Your task to perform on an android device: make emails show in primary in the gmail app Image 0: 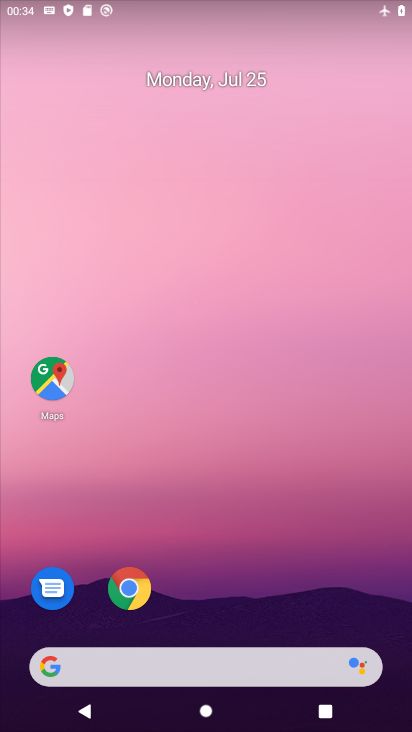
Step 0: drag from (238, 610) to (257, 22)
Your task to perform on an android device: make emails show in primary in the gmail app Image 1: 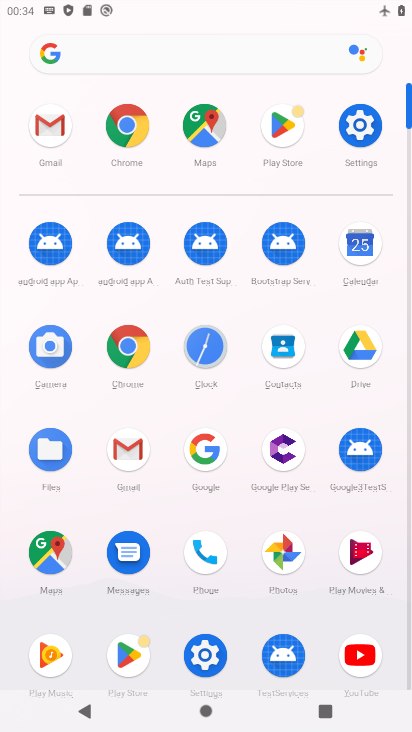
Step 1: click (128, 446)
Your task to perform on an android device: make emails show in primary in the gmail app Image 2: 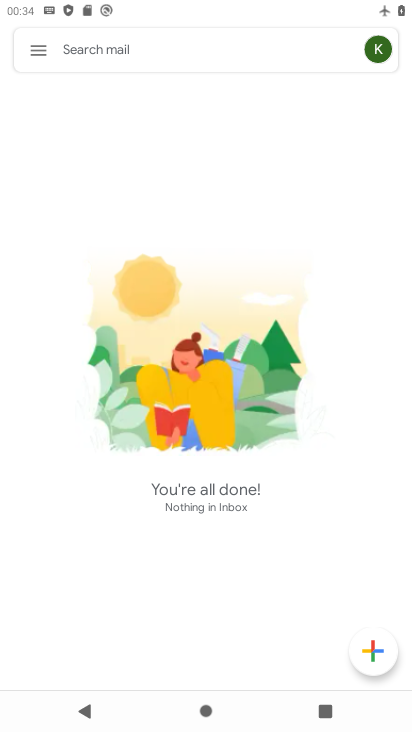
Step 2: click (28, 52)
Your task to perform on an android device: make emails show in primary in the gmail app Image 3: 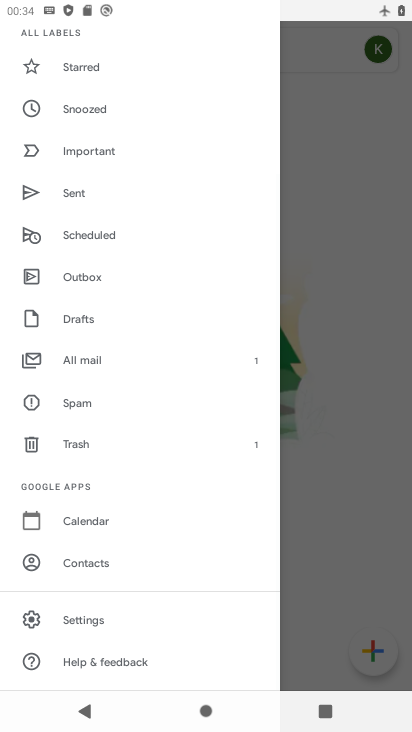
Step 3: drag from (73, 508) to (96, 88)
Your task to perform on an android device: make emails show in primary in the gmail app Image 4: 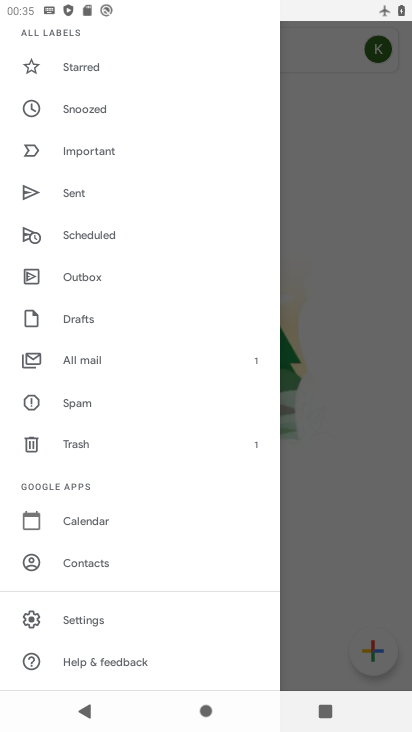
Step 4: click (91, 629)
Your task to perform on an android device: make emails show in primary in the gmail app Image 5: 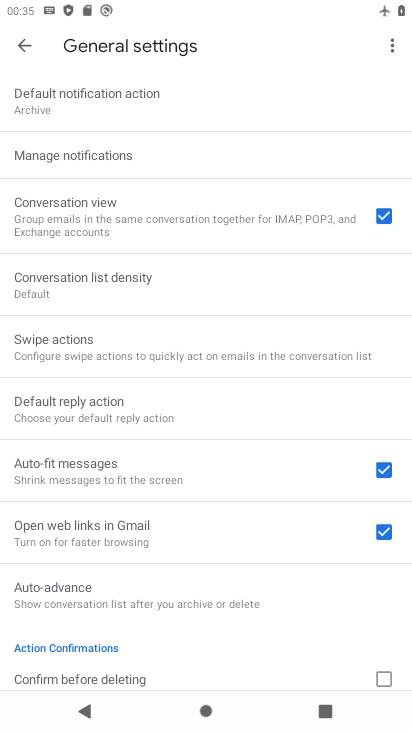
Step 5: click (27, 46)
Your task to perform on an android device: make emails show in primary in the gmail app Image 6: 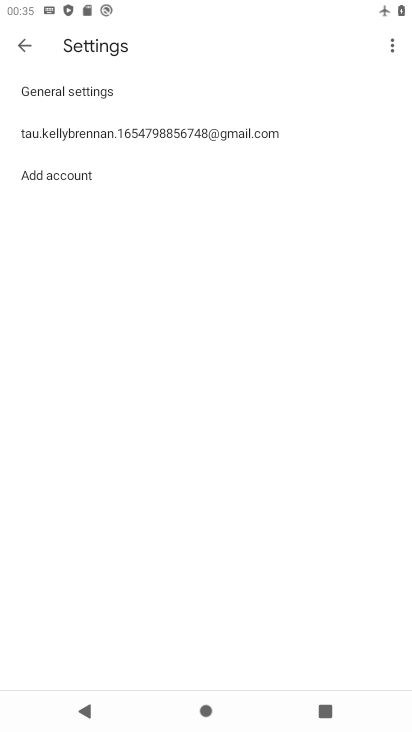
Step 6: click (184, 131)
Your task to perform on an android device: make emails show in primary in the gmail app Image 7: 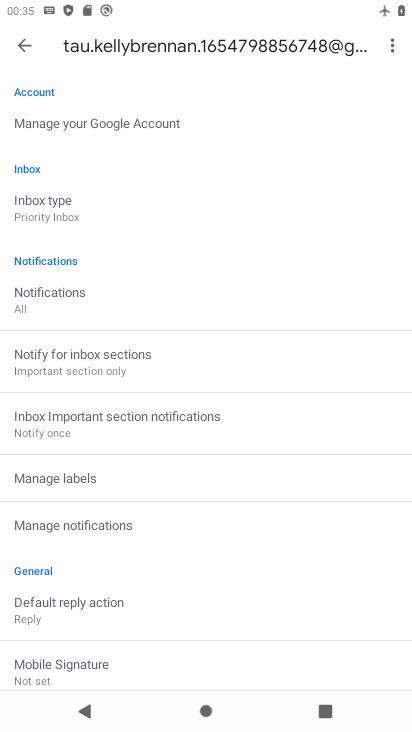
Step 7: click (71, 213)
Your task to perform on an android device: make emails show in primary in the gmail app Image 8: 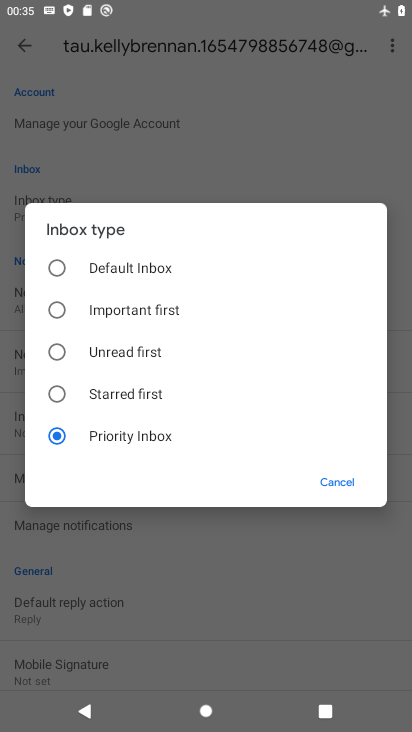
Step 8: click (110, 264)
Your task to perform on an android device: make emails show in primary in the gmail app Image 9: 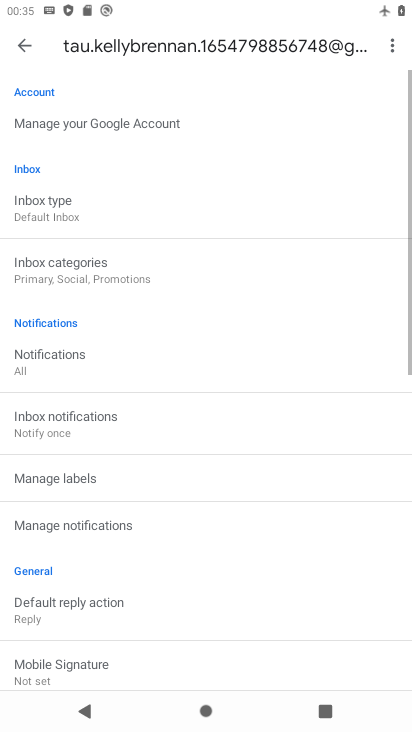
Step 9: click (87, 278)
Your task to perform on an android device: make emails show in primary in the gmail app Image 10: 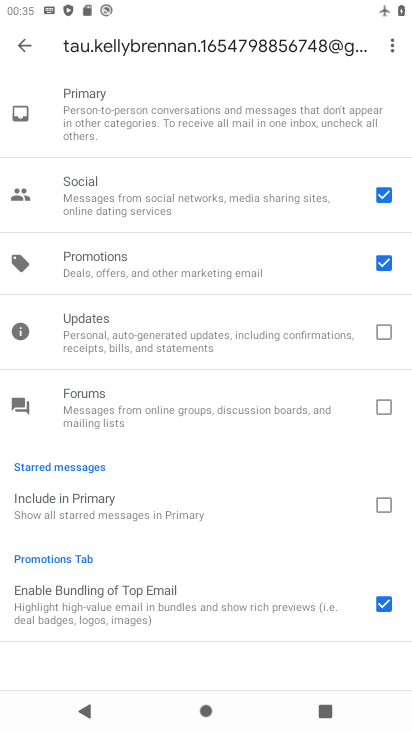
Step 10: click (389, 594)
Your task to perform on an android device: make emails show in primary in the gmail app Image 11: 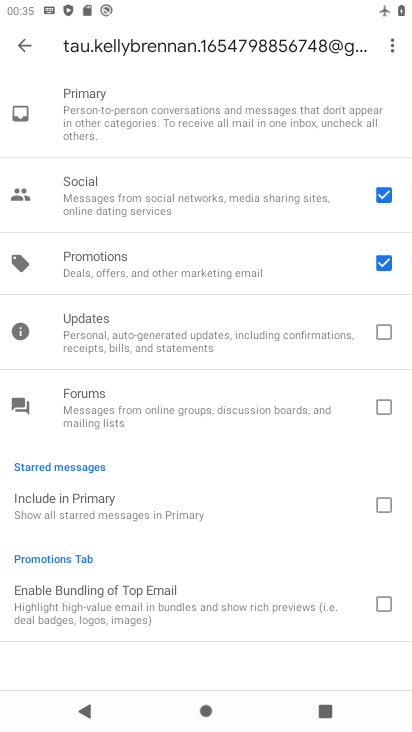
Step 11: click (375, 265)
Your task to perform on an android device: make emails show in primary in the gmail app Image 12: 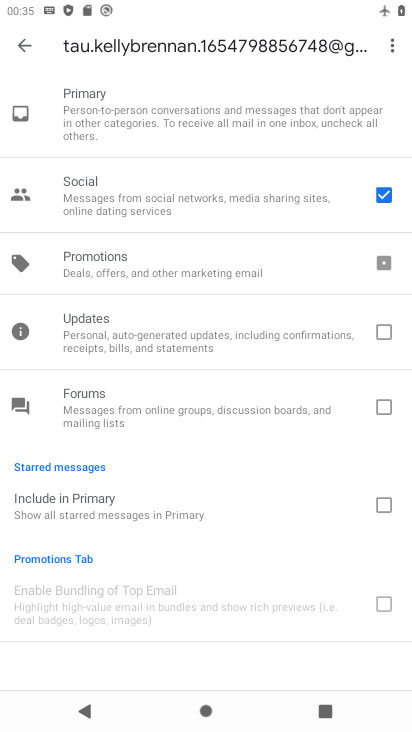
Step 12: click (381, 189)
Your task to perform on an android device: make emails show in primary in the gmail app Image 13: 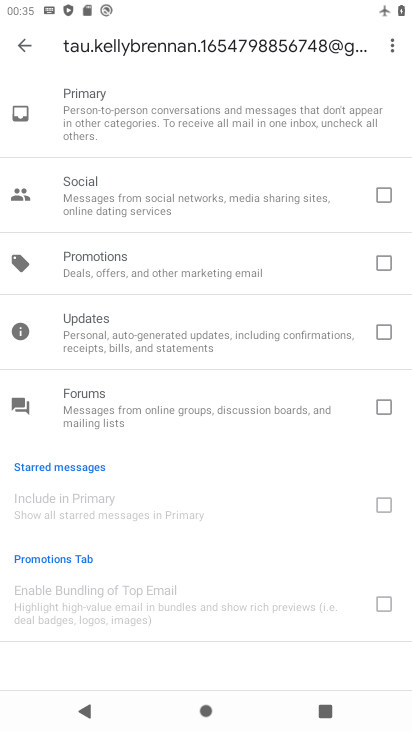
Step 13: task complete